Your task to perform on an android device: Open the Play Movies app and select the watchlist tab. Image 0: 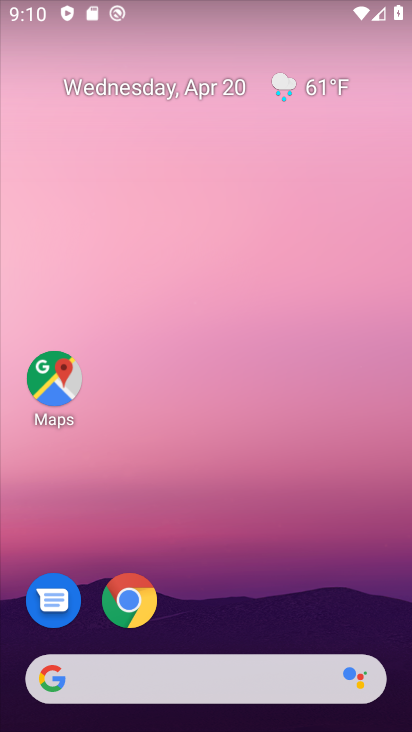
Step 0: drag from (276, 637) to (340, 112)
Your task to perform on an android device: Open the Play Movies app and select the watchlist tab. Image 1: 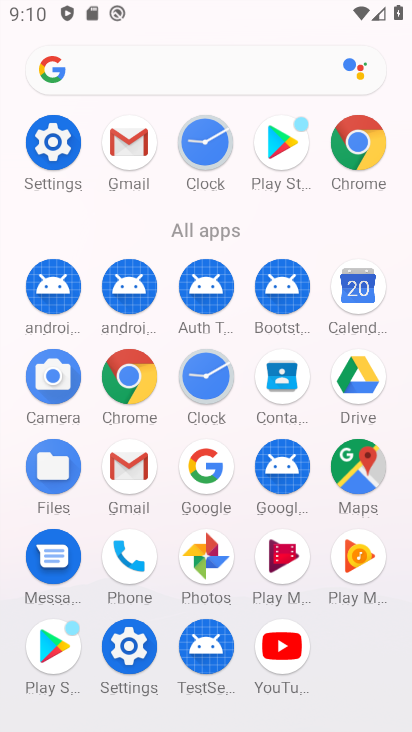
Step 1: click (292, 562)
Your task to perform on an android device: Open the Play Movies app and select the watchlist tab. Image 2: 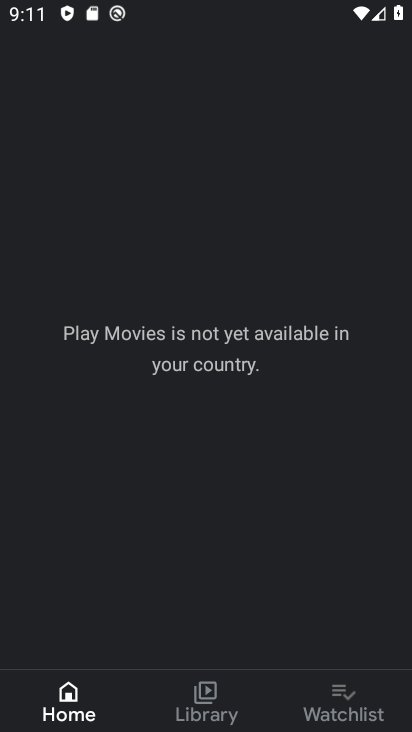
Step 2: click (359, 711)
Your task to perform on an android device: Open the Play Movies app and select the watchlist tab. Image 3: 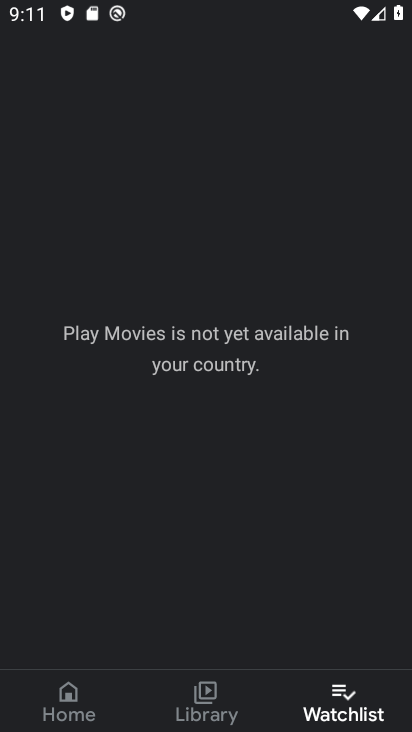
Step 3: task complete